Your task to perform on an android device: Search for "razer deathadder" on target.com, select the first entry, and add it to the cart. Image 0: 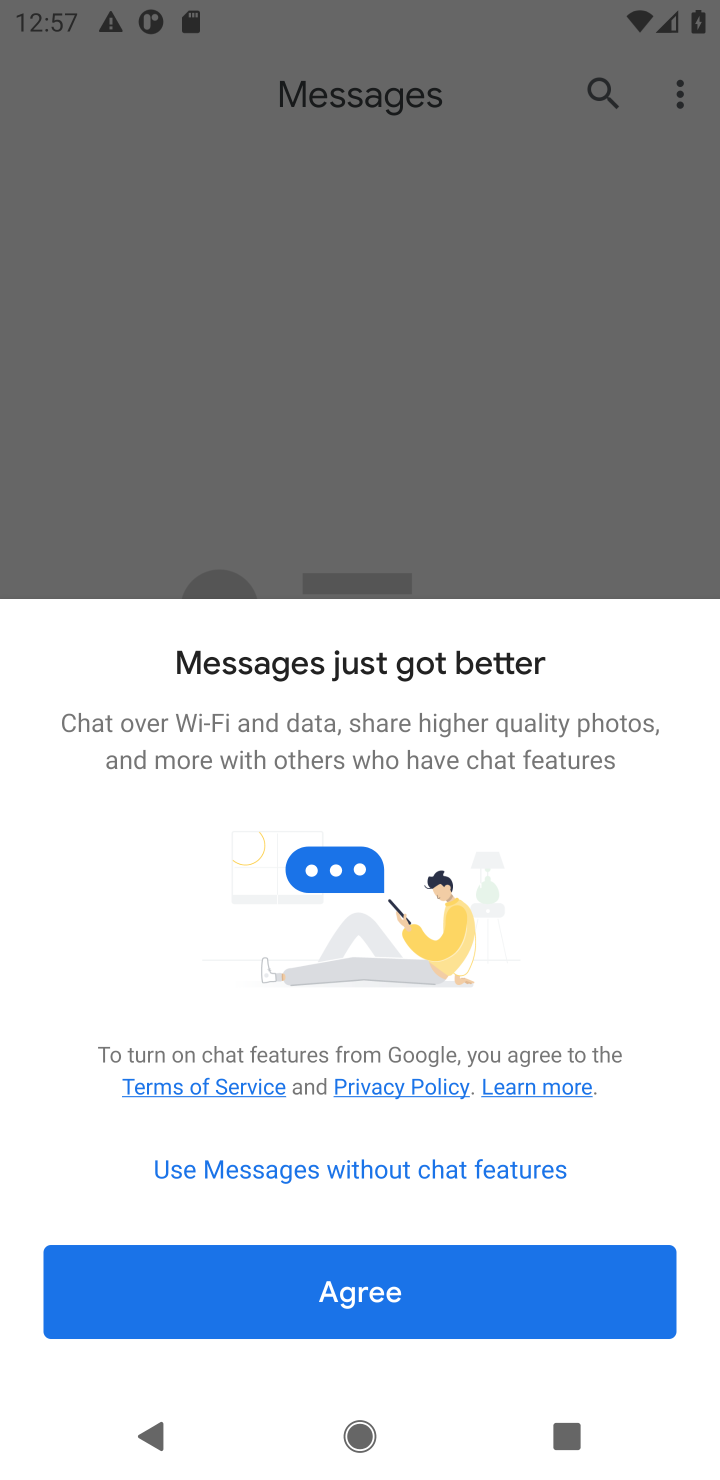
Step 0: press home button
Your task to perform on an android device: Search for "razer deathadder" on target.com, select the first entry, and add it to the cart. Image 1: 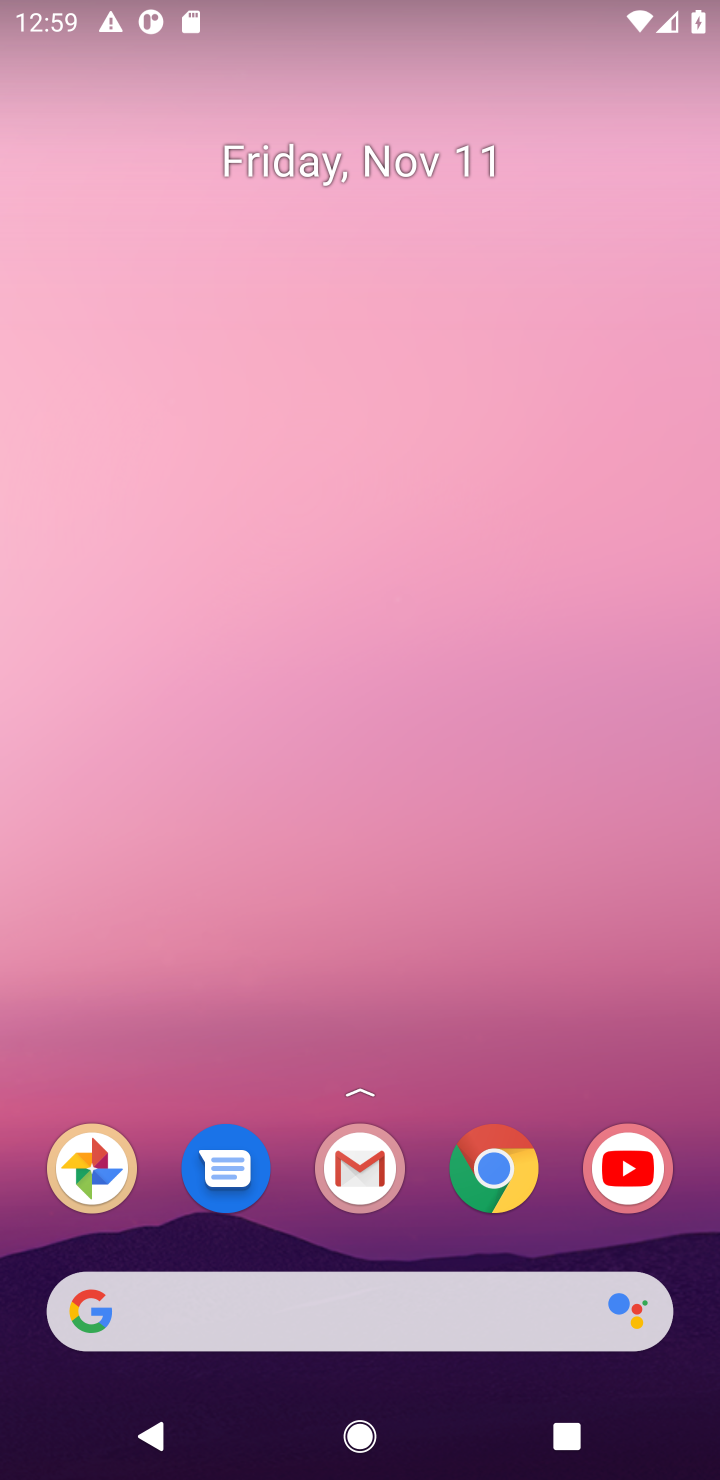
Step 1: click (492, 1192)
Your task to perform on an android device: Search for "razer deathadder" on target.com, select the first entry, and add it to the cart. Image 2: 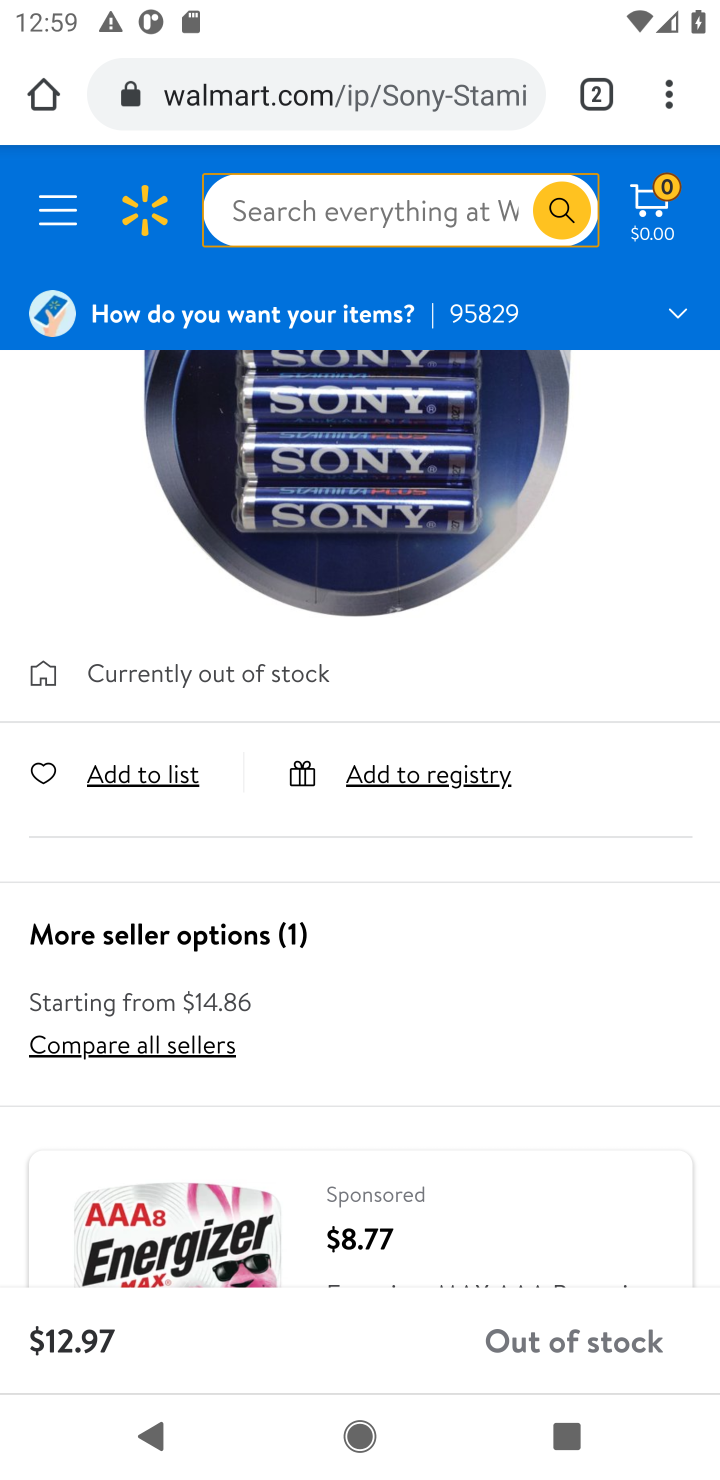
Step 2: click (301, 94)
Your task to perform on an android device: Search for "razer deathadder" on target.com, select the first entry, and add it to the cart. Image 3: 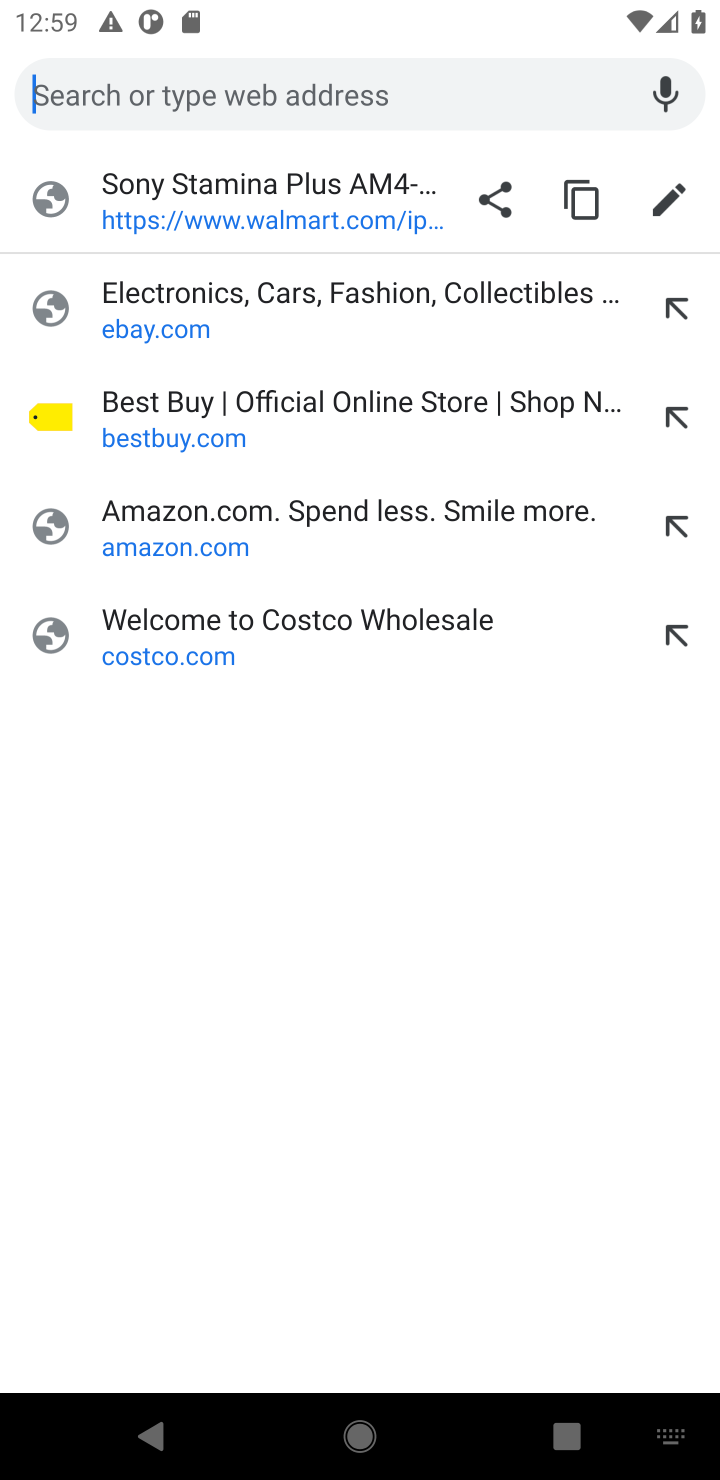
Step 3: type "target.com"
Your task to perform on an android device: Search for "razer deathadder" on target.com, select the first entry, and add it to the cart. Image 4: 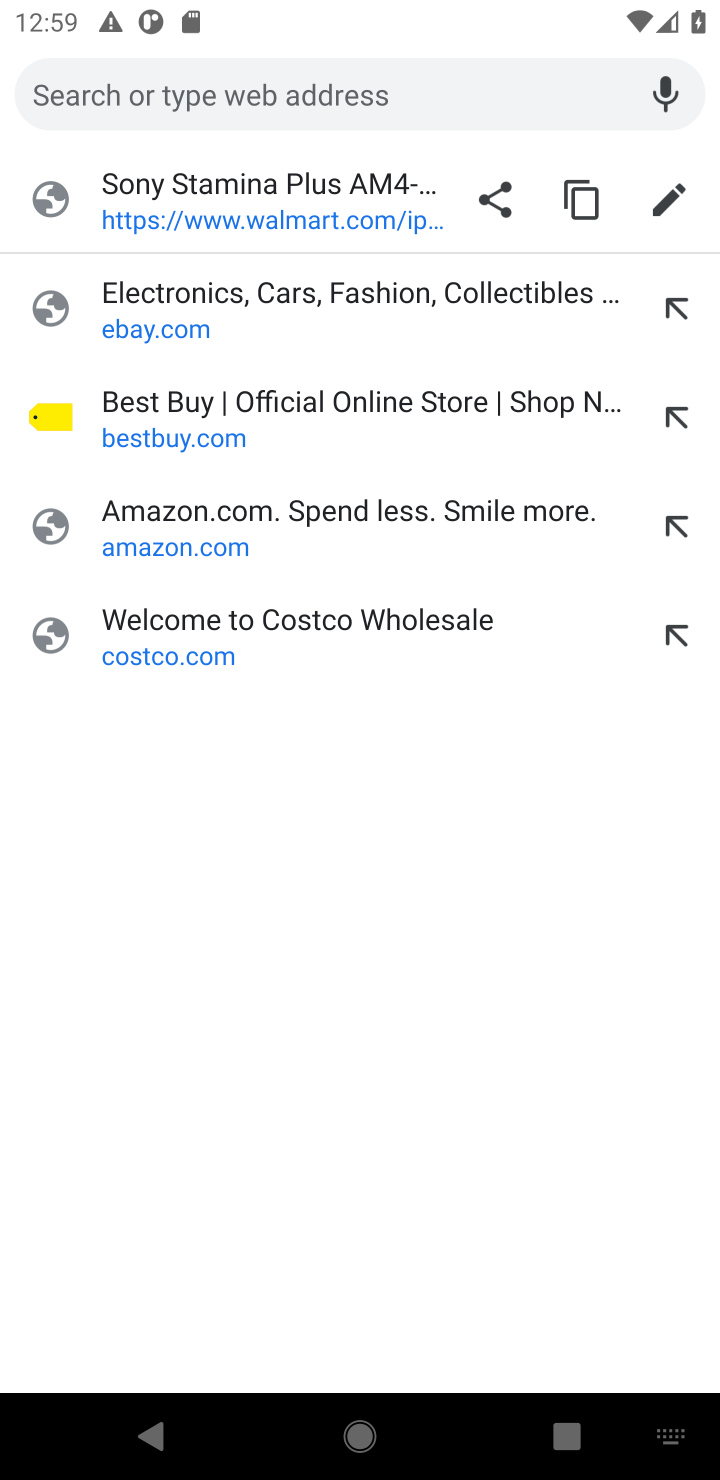
Step 4: click (269, 108)
Your task to perform on an android device: Search for "razer deathadder" on target.com, select the first entry, and add it to the cart. Image 5: 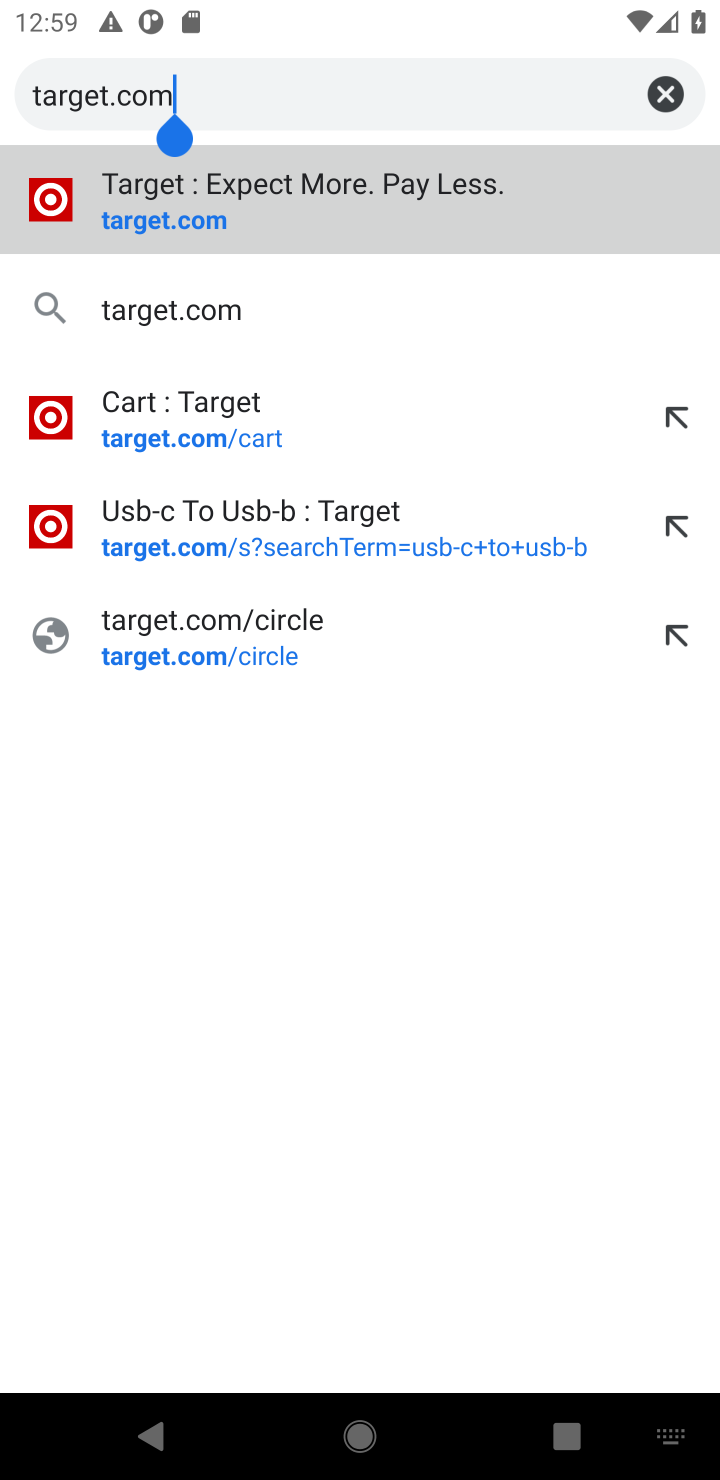
Step 5: click (127, 179)
Your task to perform on an android device: Search for "razer deathadder" on target.com, select the first entry, and add it to the cart. Image 6: 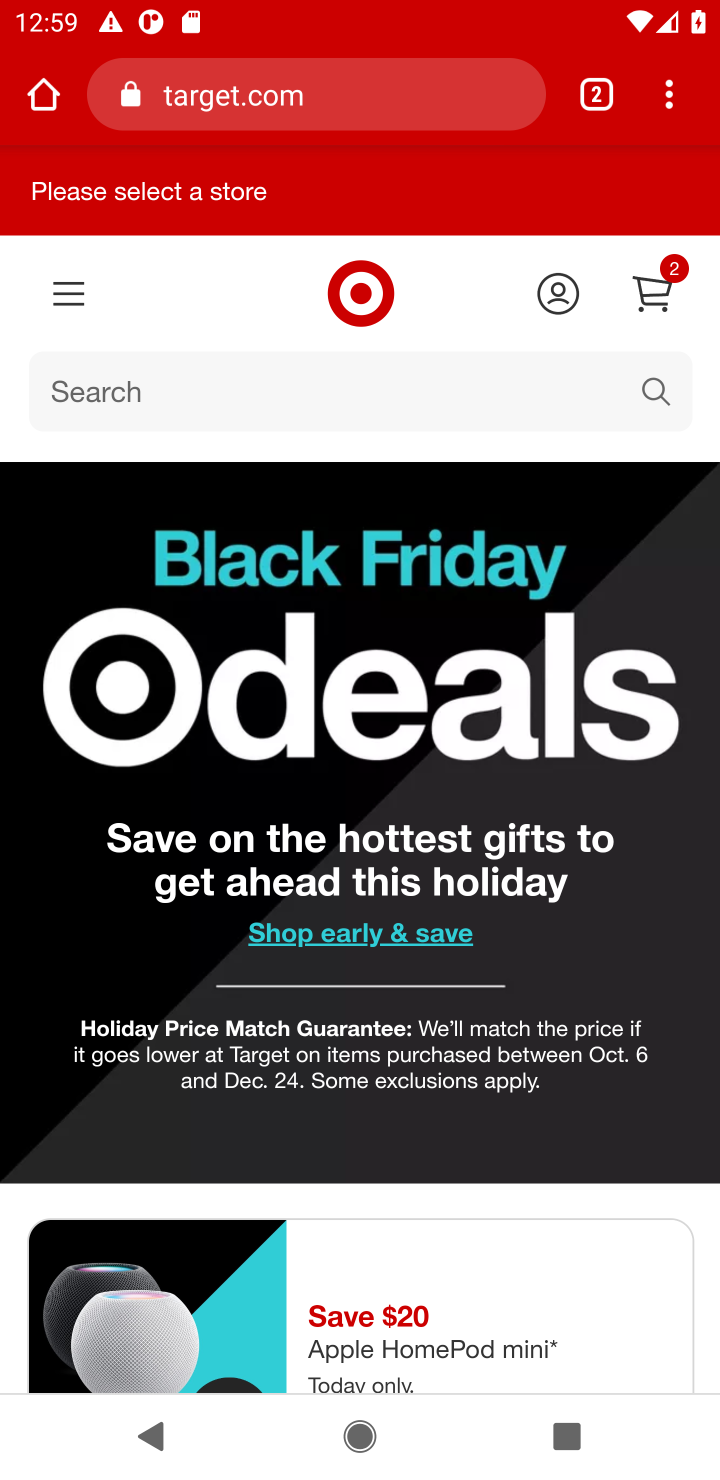
Step 6: click (654, 406)
Your task to perform on an android device: Search for "razer deathadder" on target.com, select the first entry, and add it to the cart. Image 7: 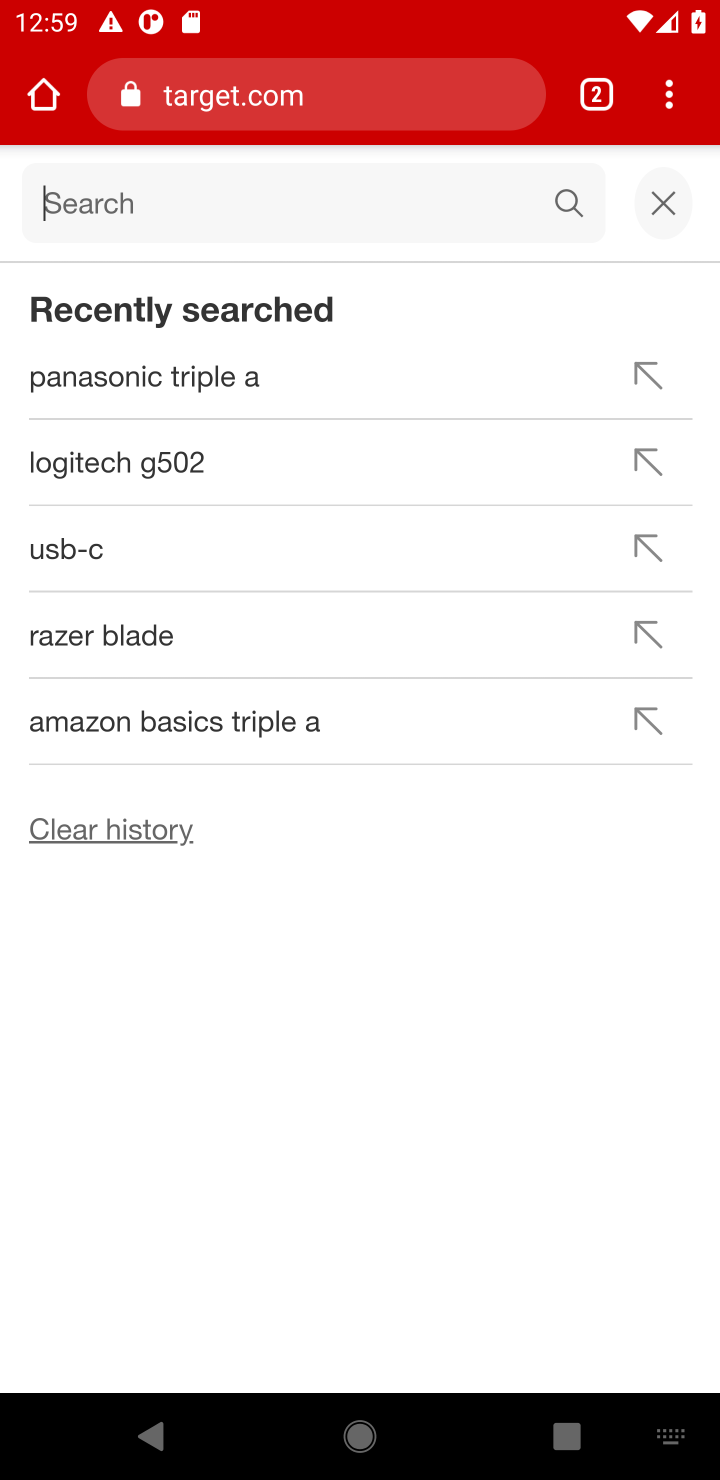
Step 7: type "razer deathadder"
Your task to perform on an android device: Search for "razer deathadder" on target.com, select the first entry, and add it to the cart. Image 8: 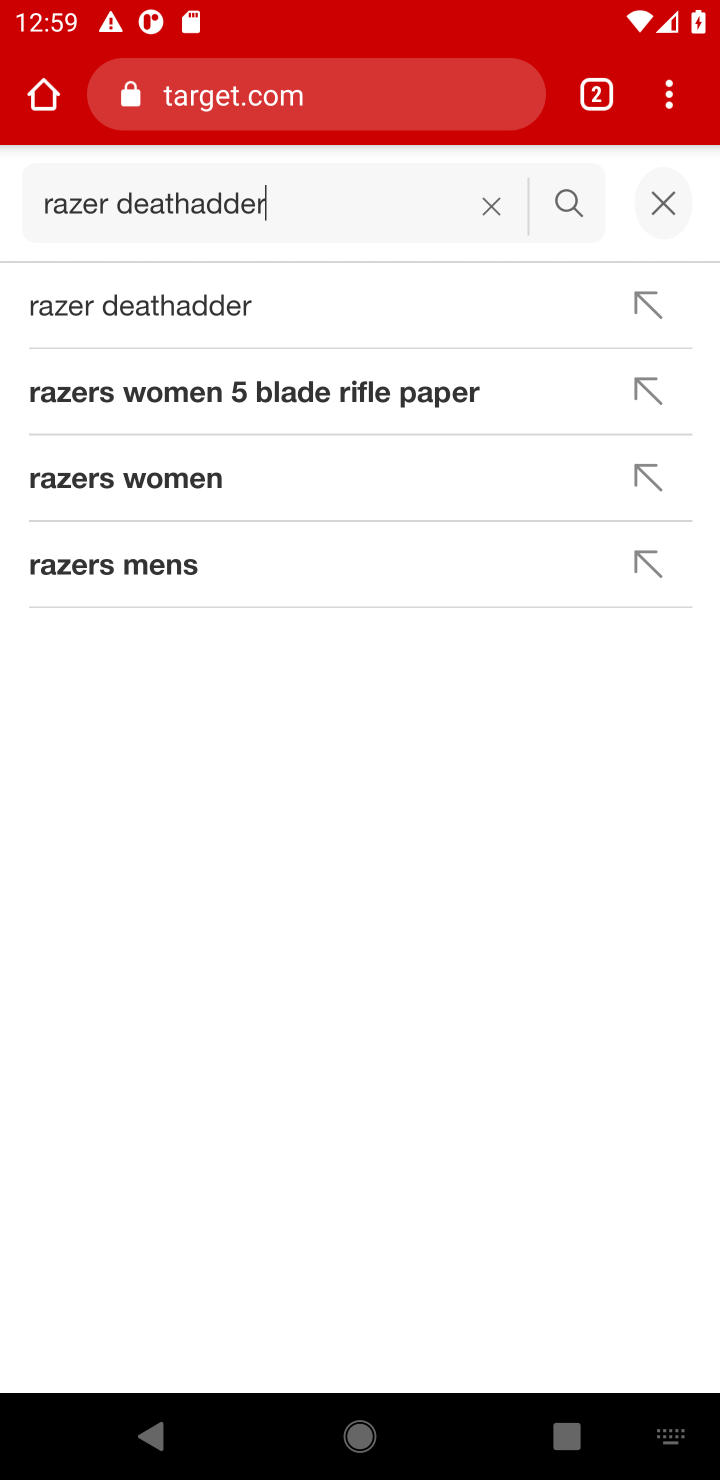
Step 8: click (189, 318)
Your task to perform on an android device: Search for "razer deathadder" on target.com, select the first entry, and add it to the cart. Image 9: 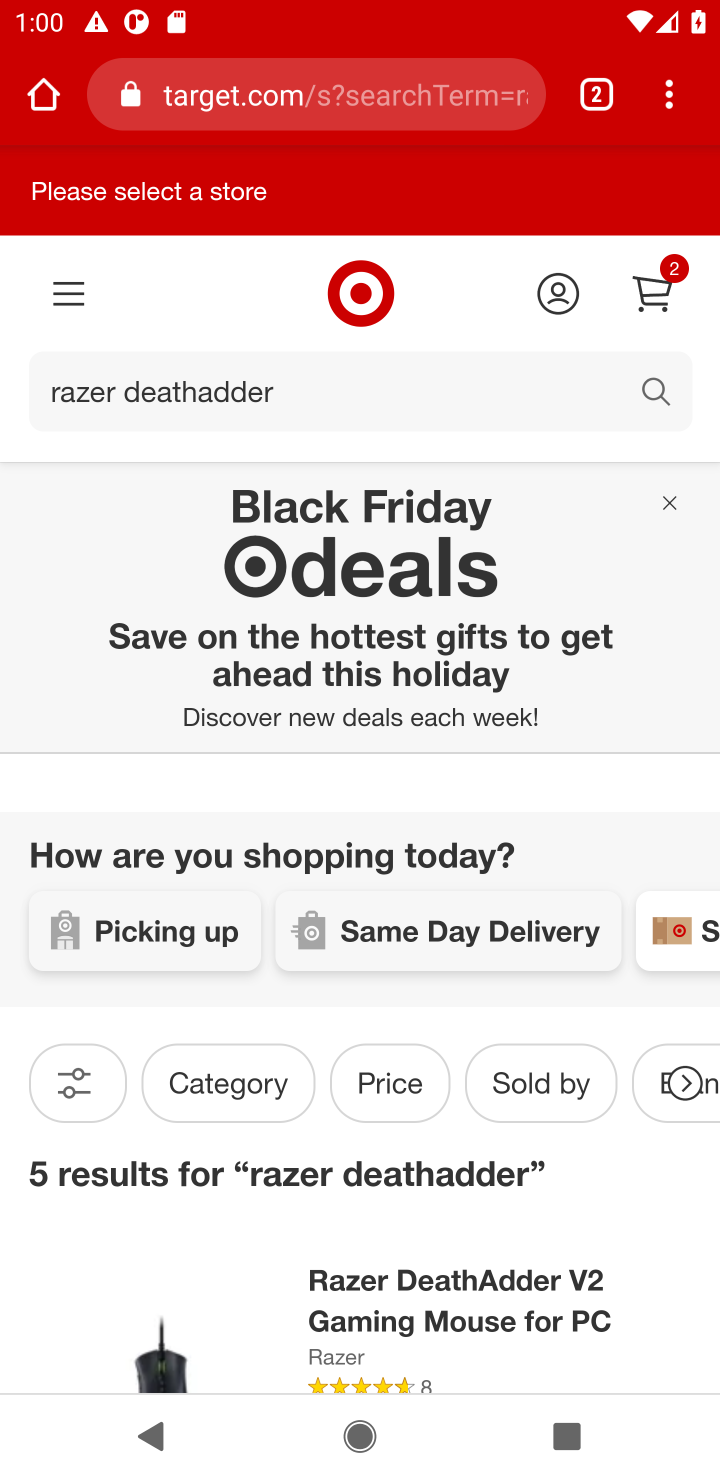
Step 9: drag from (260, 1194) to (252, 743)
Your task to perform on an android device: Search for "razer deathadder" on target.com, select the first entry, and add it to the cart. Image 10: 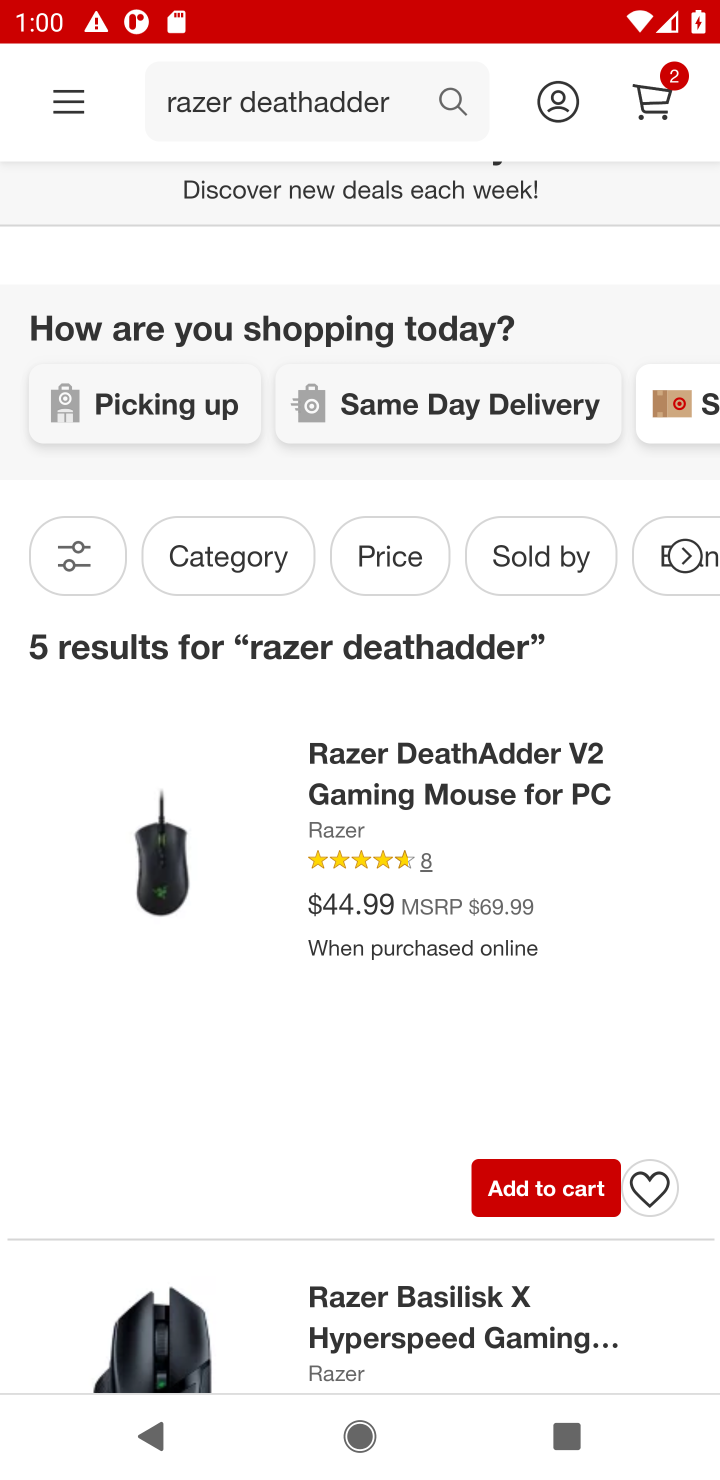
Step 10: click (558, 1183)
Your task to perform on an android device: Search for "razer deathadder" on target.com, select the first entry, and add it to the cart. Image 11: 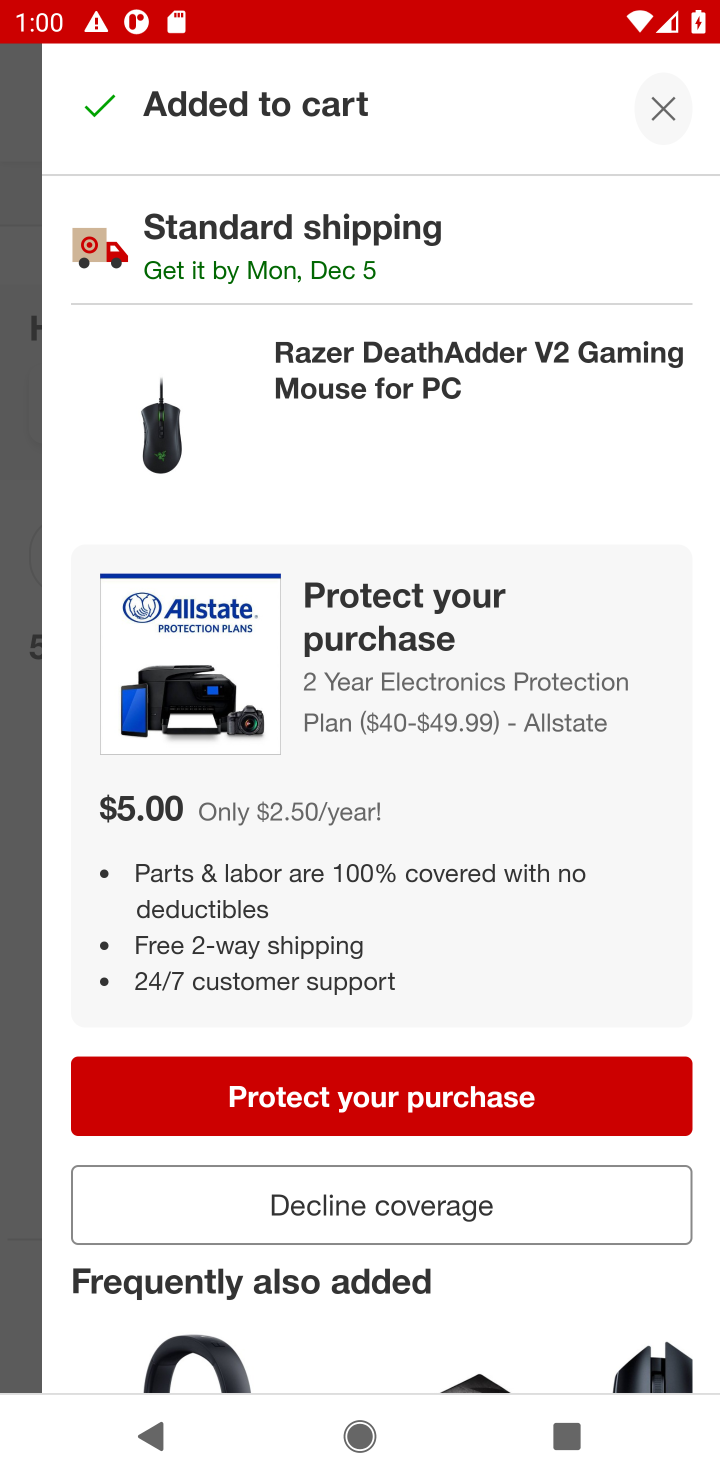
Step 11: task complete